Your task to perform on an android device: Show me popular videos on Youtube Image 0: 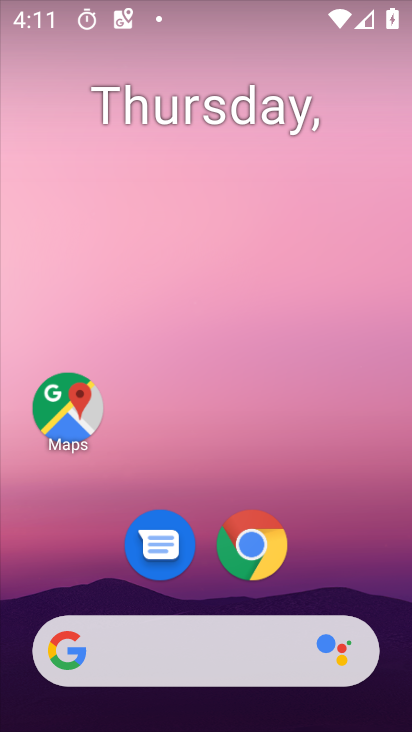
Step 0: drag from (274, 683) to (273, 134)
Your task to perform on an android device: Show me popular videos on Youtube Image 1: 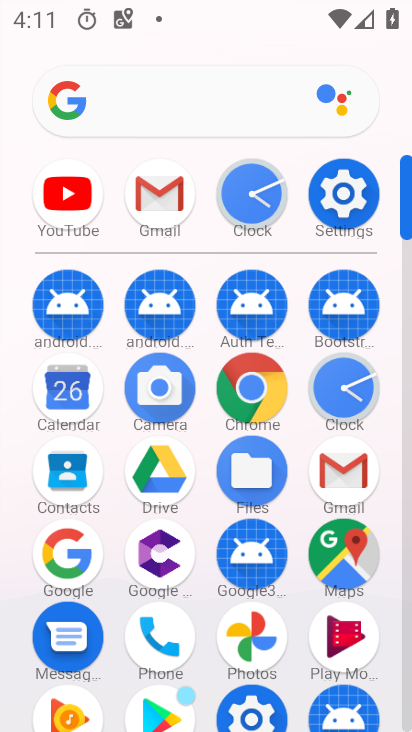
Step 1: drag from (209, 669) to (210, 276)
Your task to perform on an android device: Show me popular videos on Youtube Image 2: 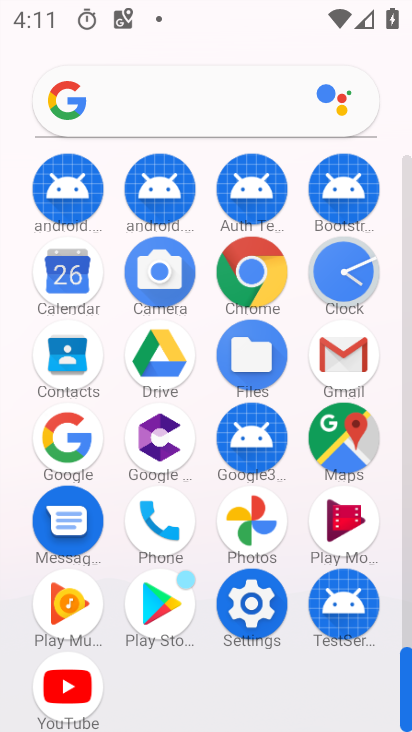
Step 2: click (71, 673)
Your task to perform on an android device: Show me popular videos on Youtube Image 3: 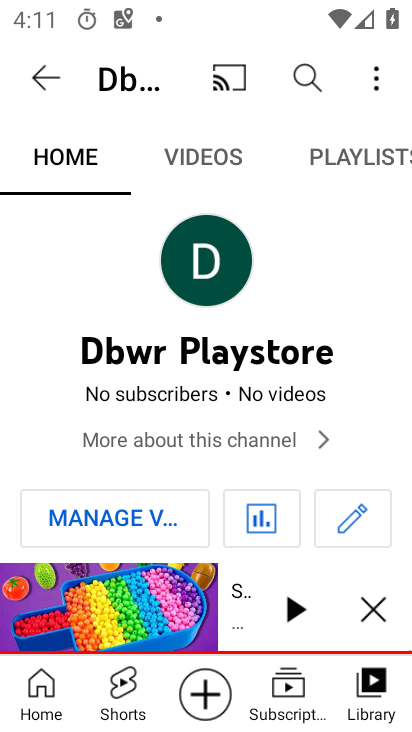
Step 3: click (307, 67)
Your task to perform on an android device: Show me popular videos on Youtube Image 4: 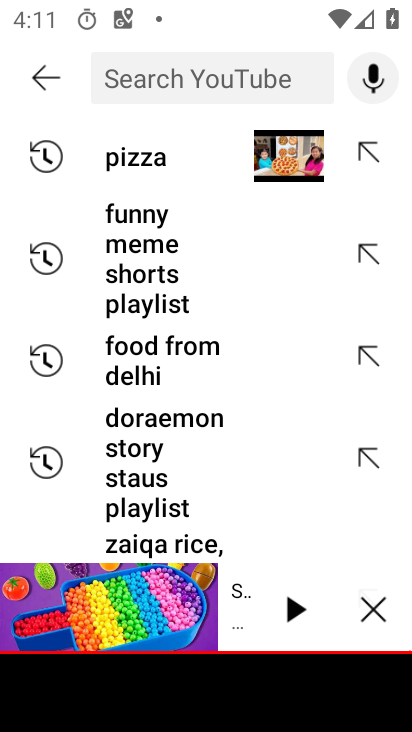
Step 4: type "popular videos on youtube"
Your task to perform on an android device: Show me popular videos on Youtube Image 5: 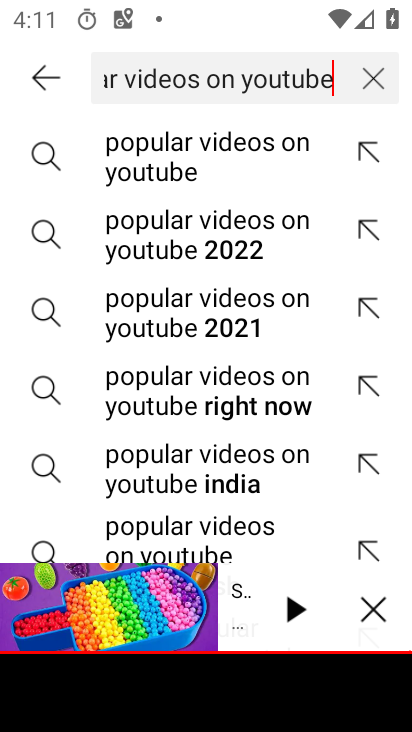
Step 5: click (175, 146)
Your task to perform on an android device: Show me popular videos on Youtube Image 6: 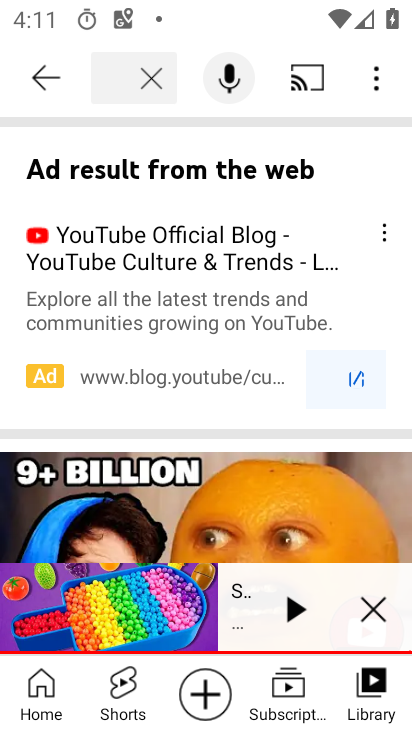
Step 6: click (206, 486)
Your task to perform on an android device: Show me popular videos on Youtube Image 7: 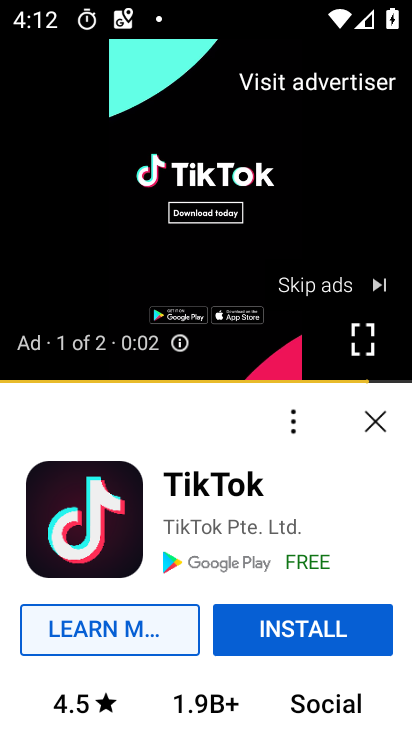
Step 7: click (321, 286)
Your task to perform on an android device: Show me popular videos on Youtube Image 8: 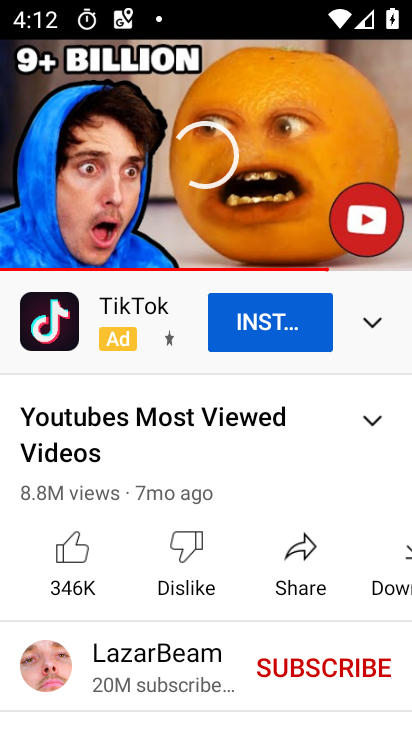
Step 8: task complete